Your task to perform on an android device: change alarm snooze length Image 0: 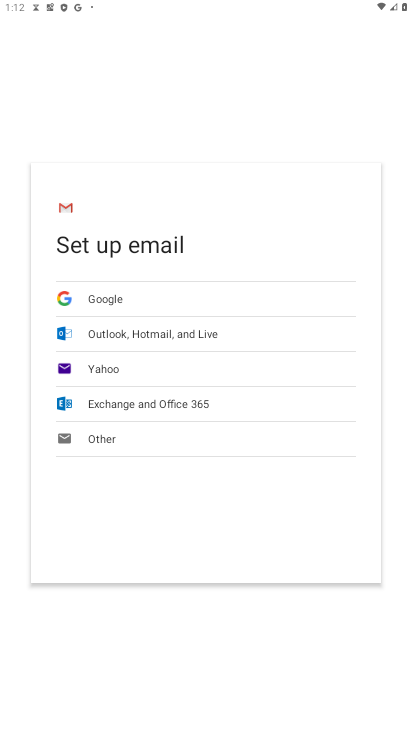
Step 0: press home button
Your task to perform on an android device: change alarm snooze length Image 1: 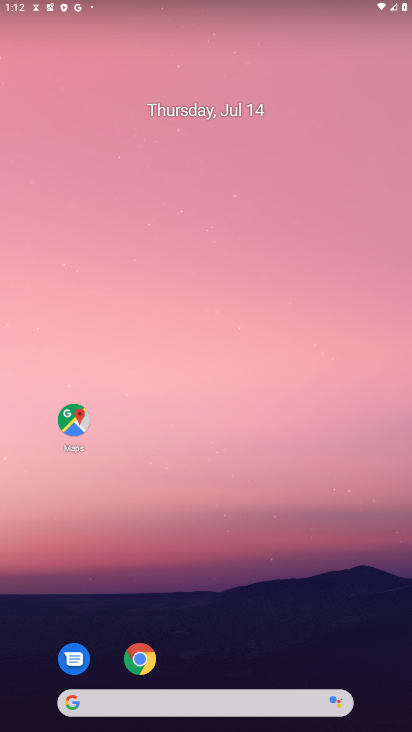
Step 1: drag from (22, 693) to (186, 210)
Your task to perform on an android device: change alarm snooze length Image 2: 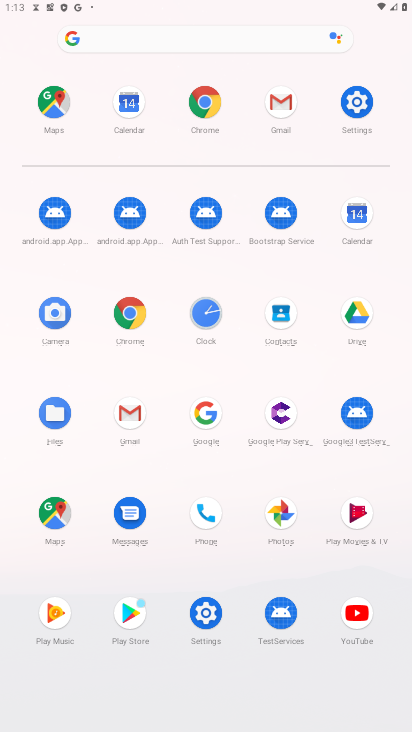
Step 2: click (201, 317)
Your task to perform on an android device: change alarm snooze length Image 3: 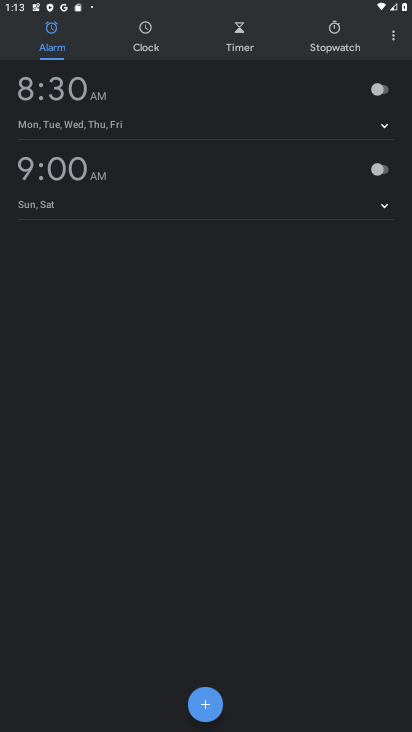
Step 3: click (394, 34)
Your task to perform on an android device: change alarm snooze length Image 4: 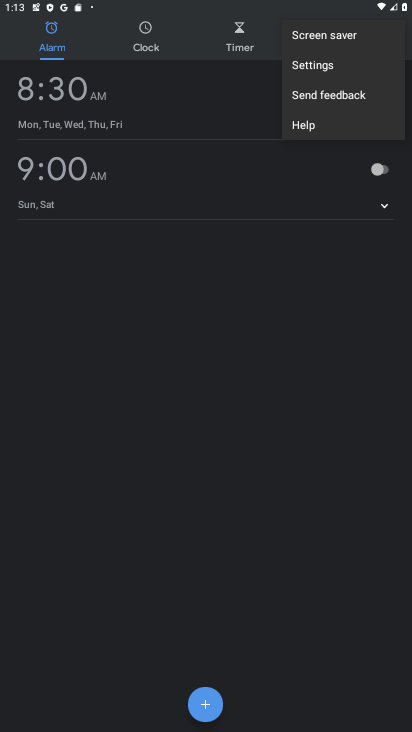
Step 4: click (320, 73)
Your task to perform on an android device: change alarm snooze length Image 5: 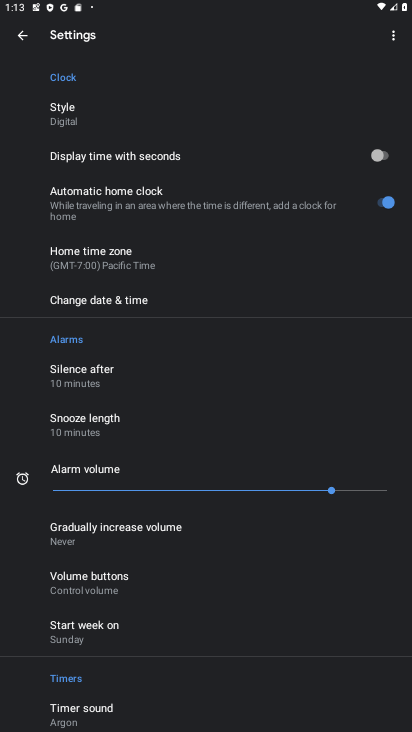
Step 5: drag from (154, 685) to (227, 349)
Your task to perform on an android device: change alarm snooze length Image 6: 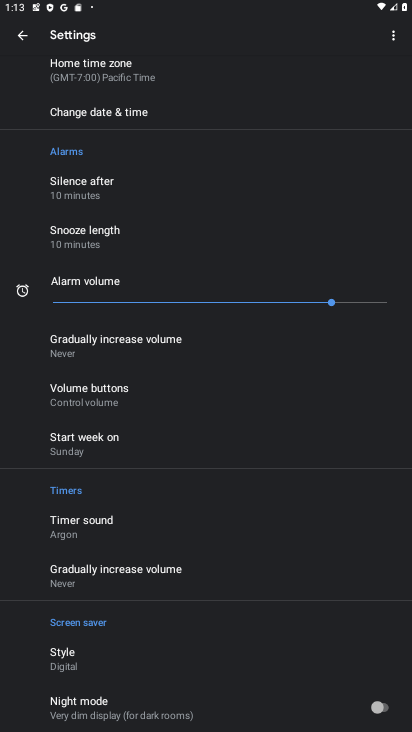
Step 6: click (121, 237)
Your task to perform on an android device: change alarm snooze length Image 7: 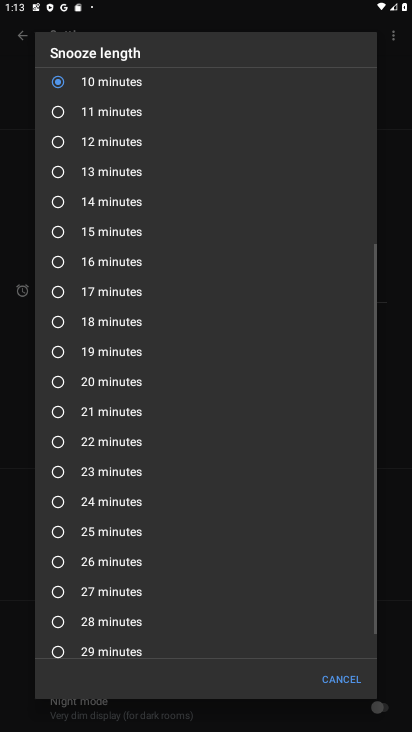
Step 7: click (56, 226)
Your task to perform on an android device: change alarm snooze length Image 8: 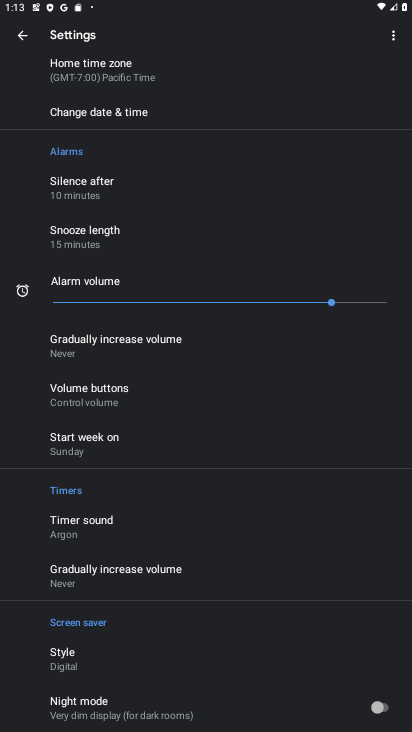
Step 8: task complete